Your task to perform on an android device: Do I have any events tomorrow? Image 0: 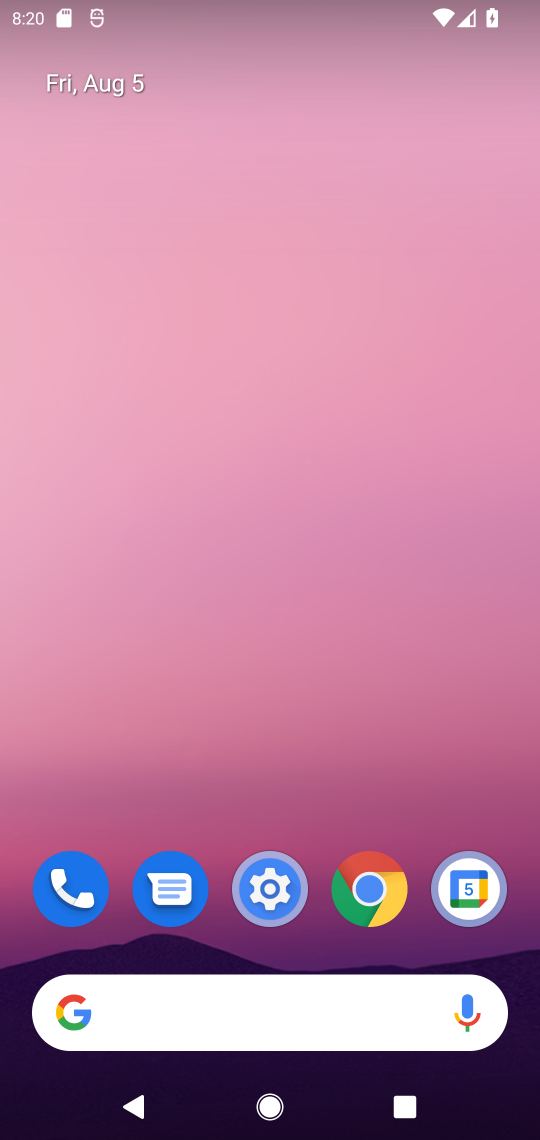
Step 0: drag from (300, 962) to (331, 311)
Your task to perform on an android device: Do I have any events tomorrow? Image 1: 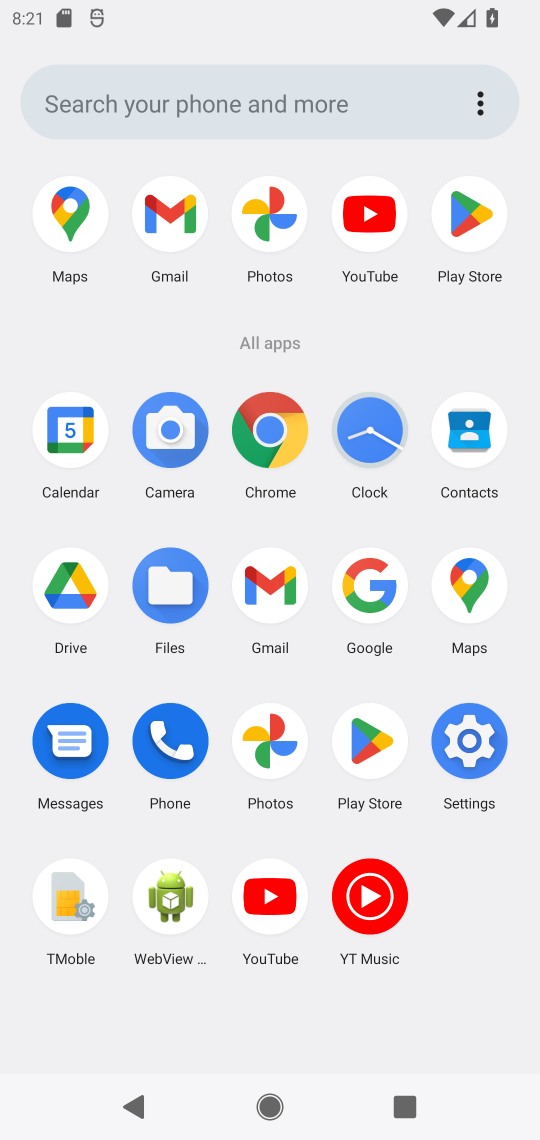
Step 1: click (368, 587)
Your task to perform on an android device: Do I have any events tomorrow? Image 2: 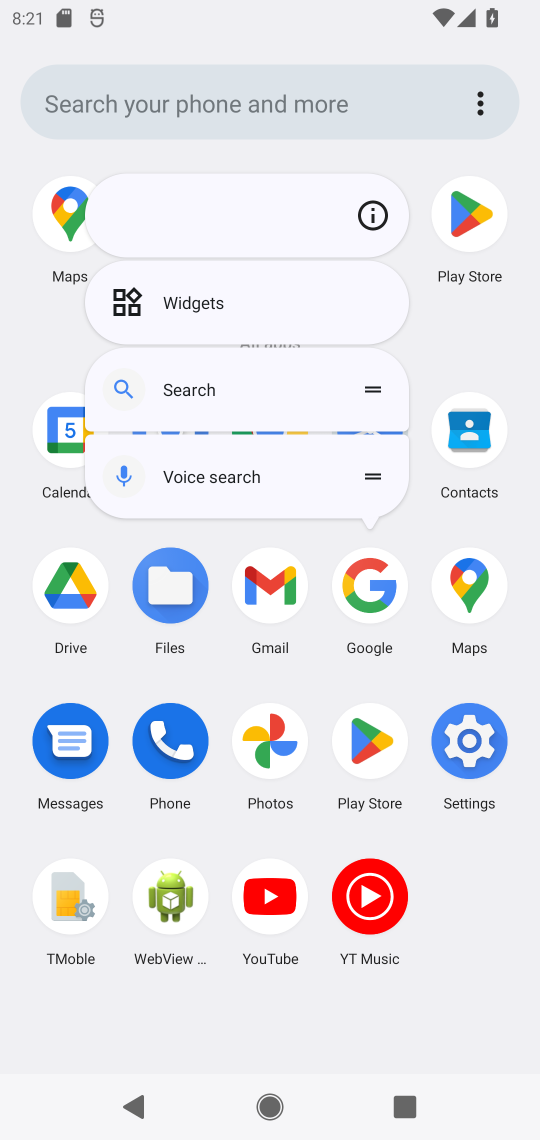
Step 2: click (272, 612)
Your task to perform on an android device: Do I have any events tomorrow? Image 3: 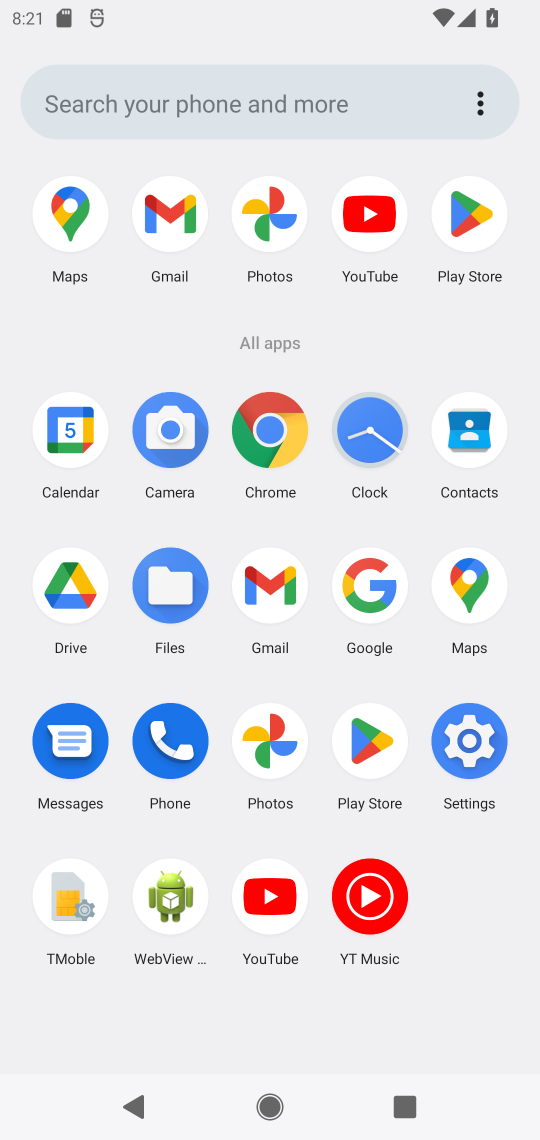
Step 3: click (272, 612)
Your task to perform on an android device: Do I have any events tomorrow? Image 4: 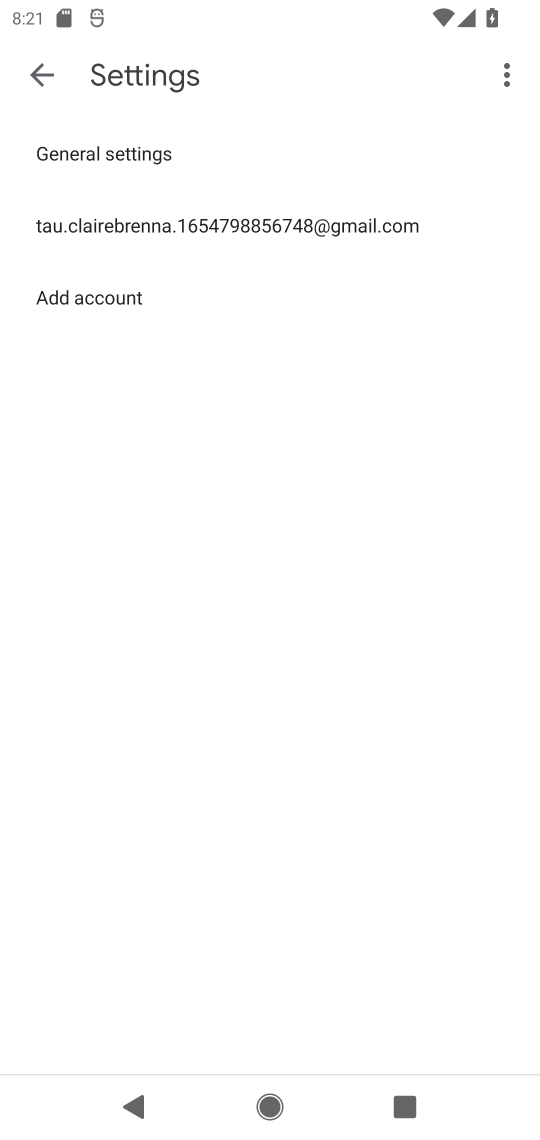
Step 4: click (35, 69)
Your task to perform on an android device: Do I have any events tomorrow? Image 5: 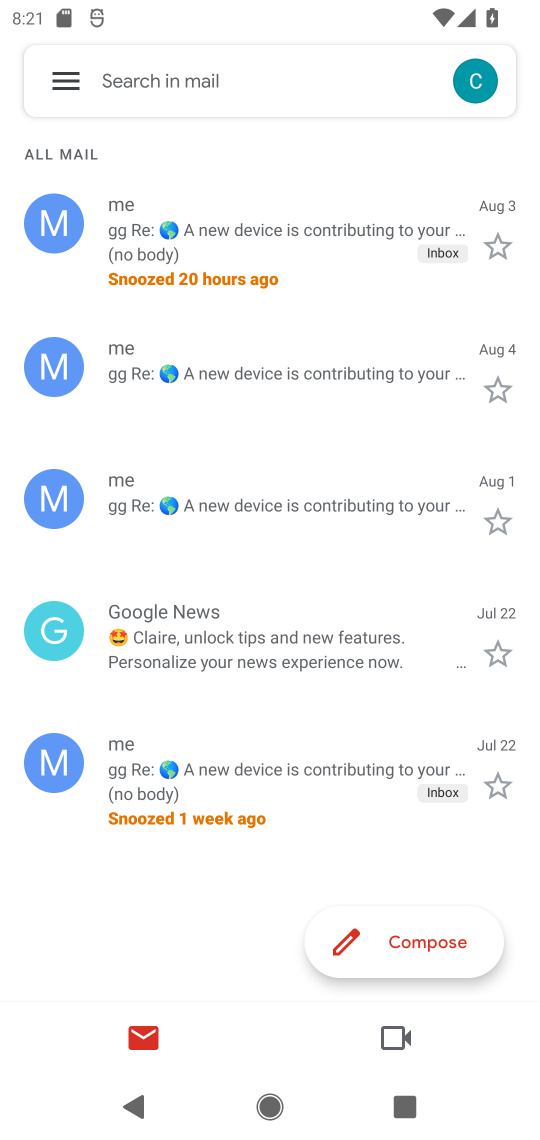
Step 5: press home button
Your task to perform on an android device: Do I have any events tomorrow? Image 6: 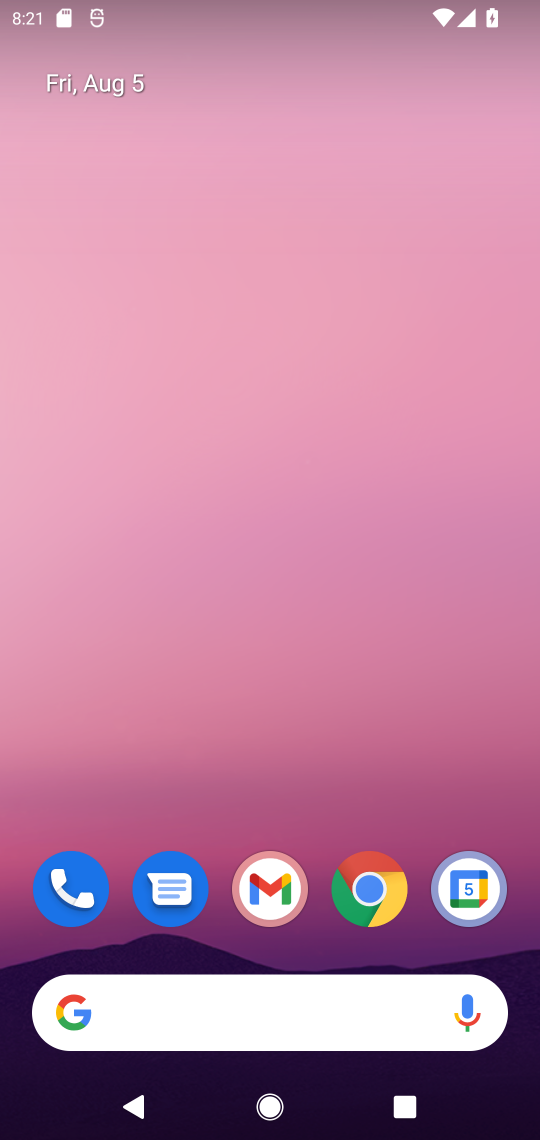
Step 6: drag from (182, 935) to (188, 179)
Your task to perform on an android device: Do I have any events tomorrow? Image 7: 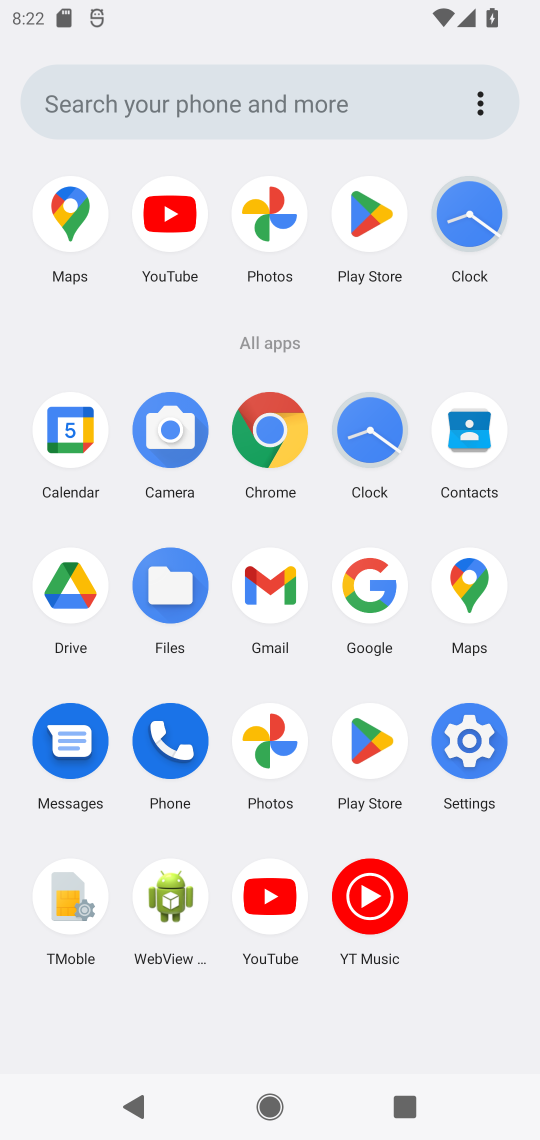
Step 7: click (386, 599)
Your task to perform on an android device: Do I have any events tomorrow? Image 8: 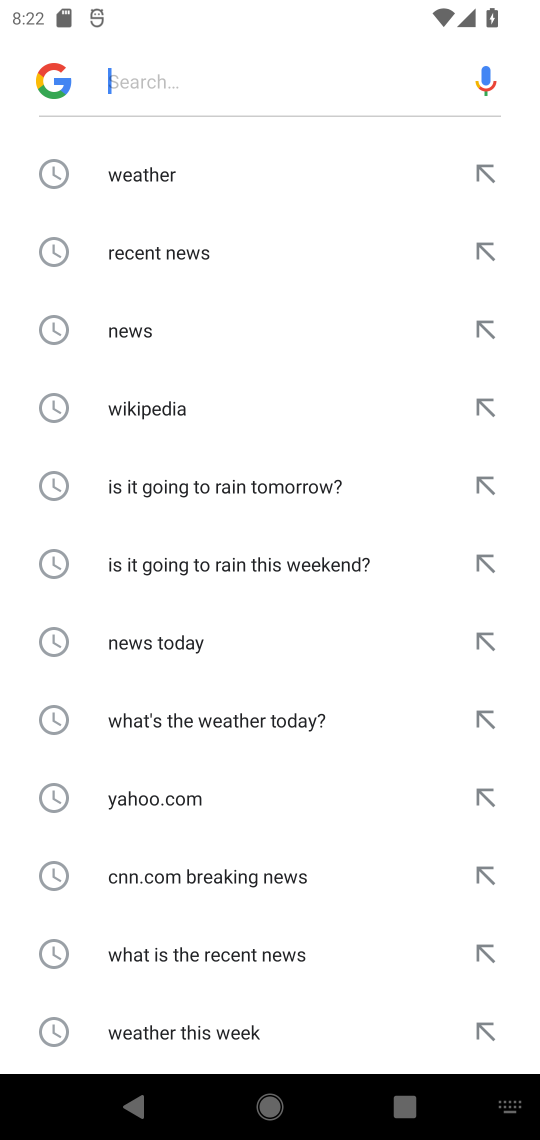
Step 8: press home button
Your task to perform on an android device: Do I have any events tomorrow? Image 9: 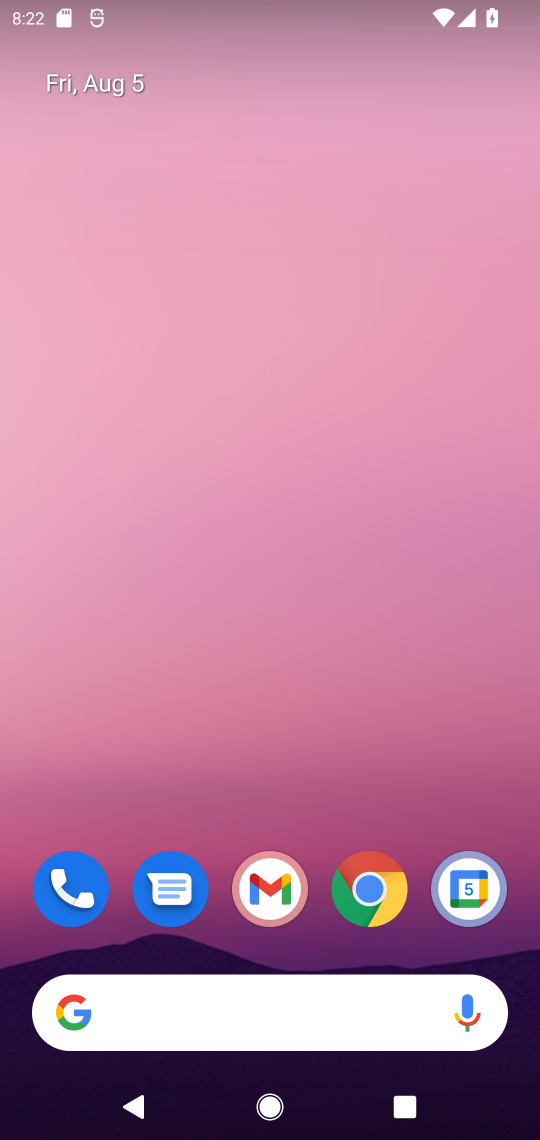
Step 9: drag from (211, 1007) to (276, 350)
Your task to perform on an android device: Do I have any events tomorrow? Image 10: 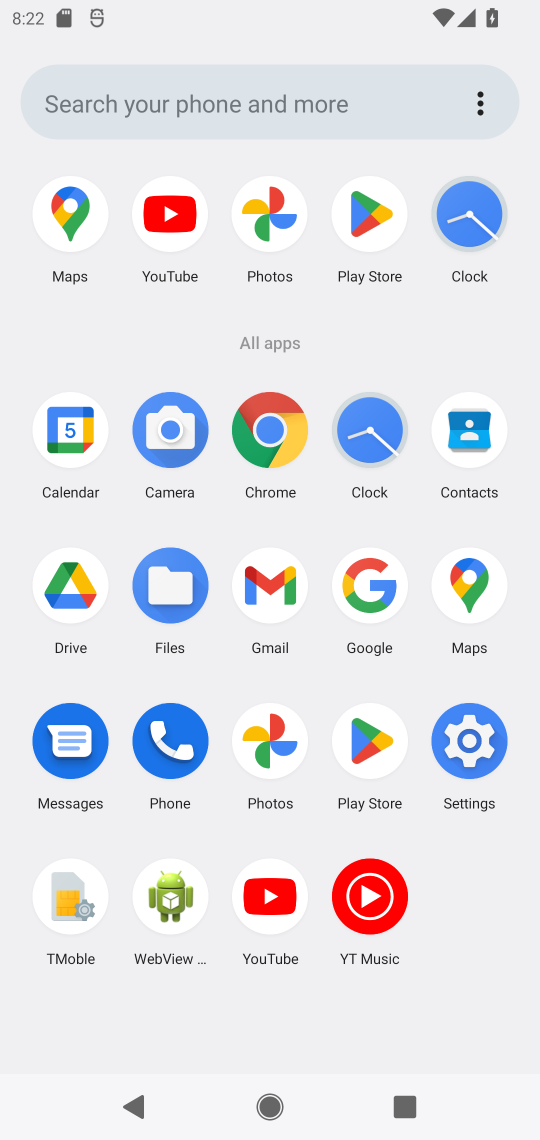
Step 10: click (268, 457)
Your task to perform on an android device: Do I have any events tomorrow? Image 11: 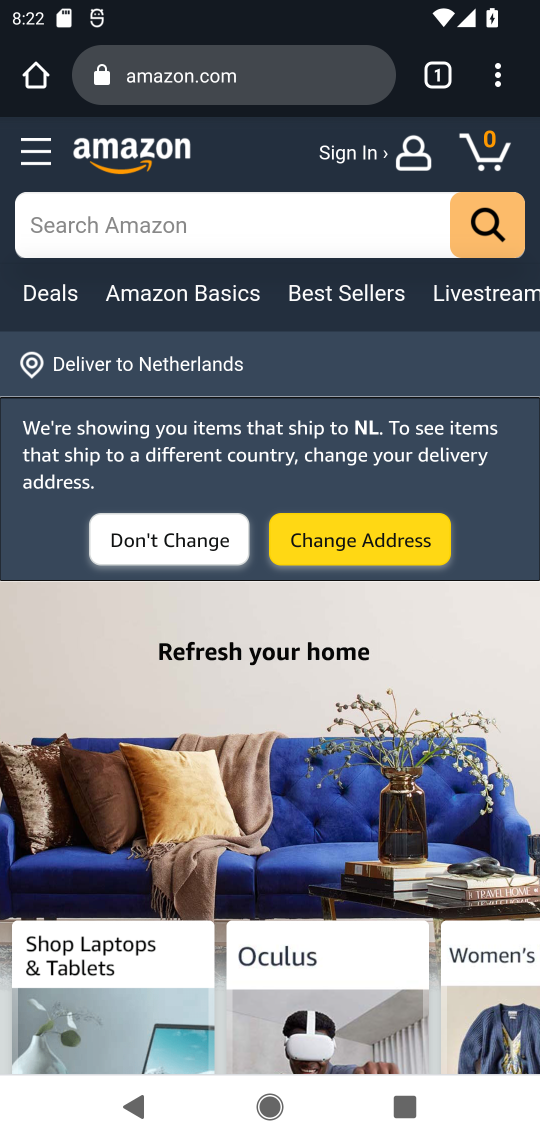
Step 11: click (504, 64)
Your task to perform on an android device: Do I have any events tomorrow? Image 12: 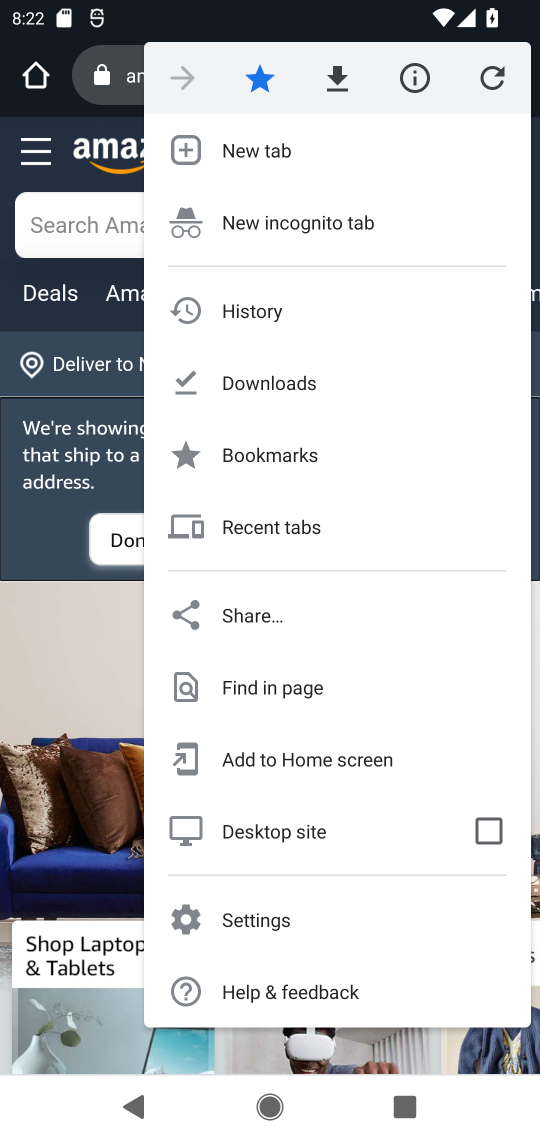
Step 12: click (269, 153)
Your task to perform on an android device: Do I have any events tomorrow? Image 13: 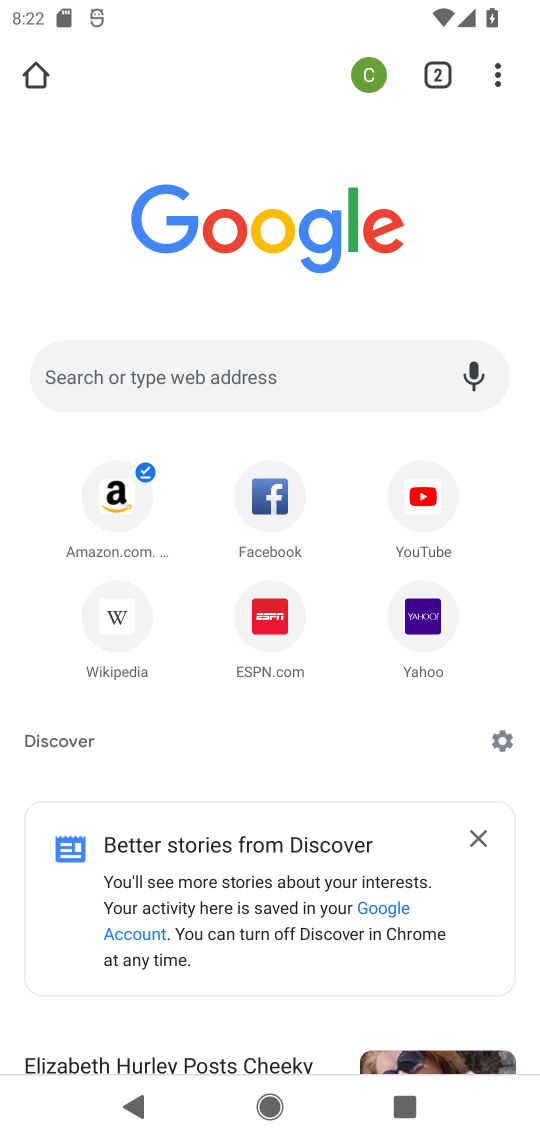
Step 13: click (160, 363)
Your task to perform on an android device: Do I have any events tomorrow? Image 14: 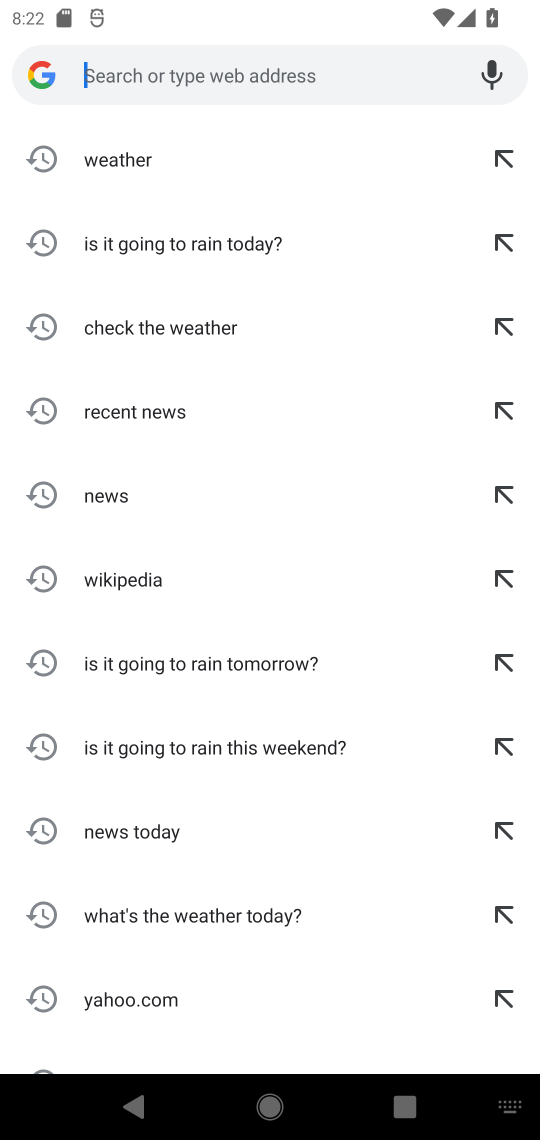
Step 14: type "Do I have any events tomorrow? "
Your task to perform on an android device: Do I have any events tomorrow? Image 15: 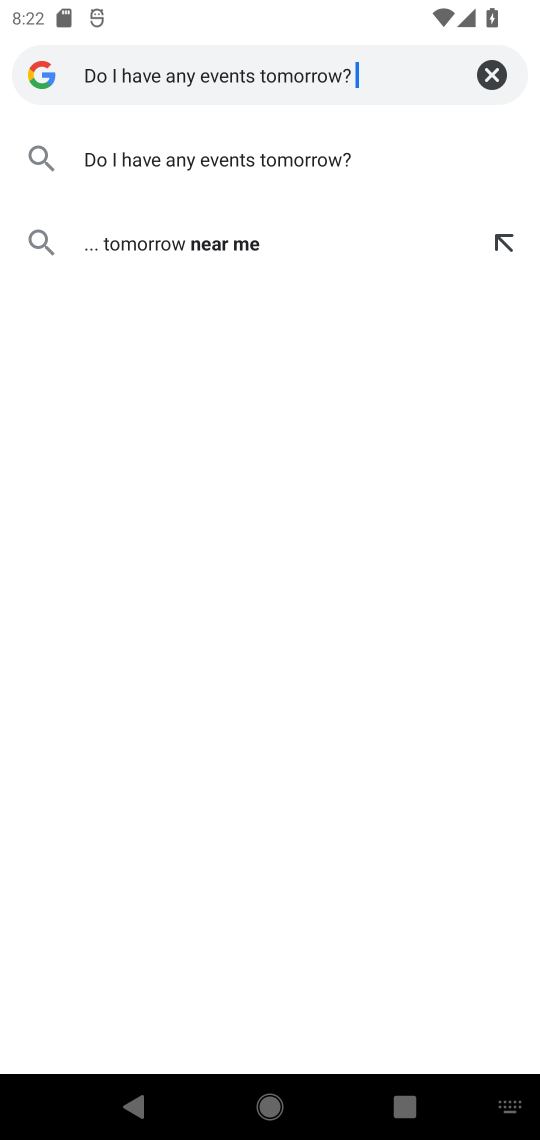
Step 15: click (253, 152)
Your task to perform on an android device: Do I have any events tomorrow? Image 16: 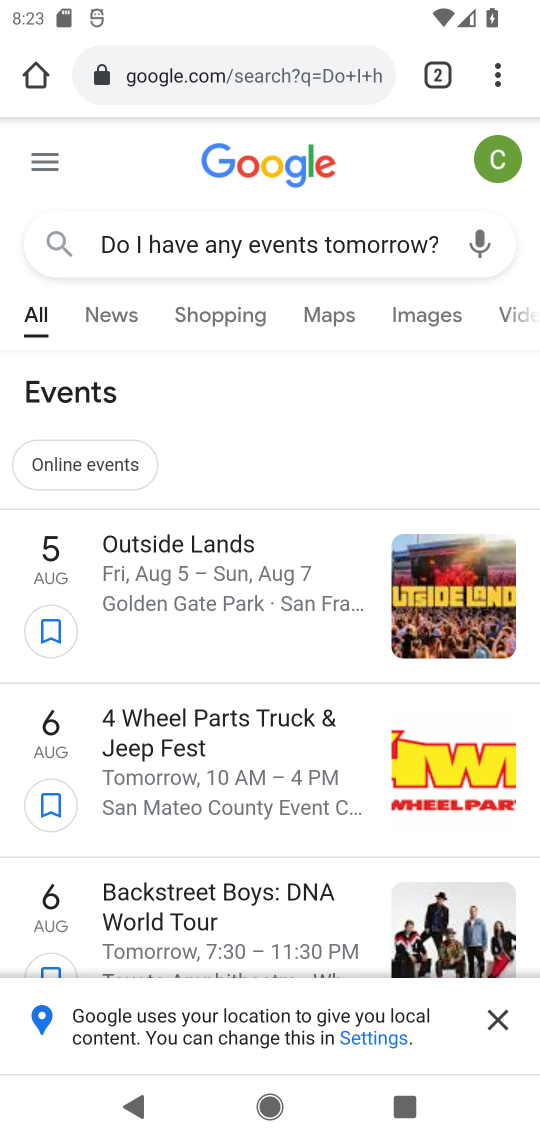
Step 16: task complete